Your task to perform on an android device: Open Android settings Image 0: 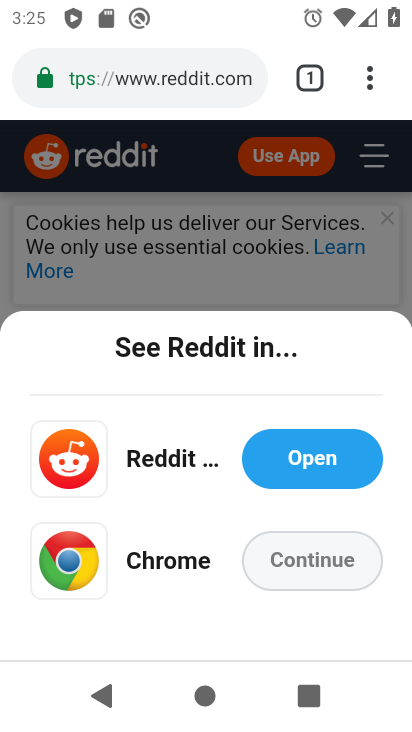
Step 0: press home button
Your task to perform on an android device: Open Android settings Image 1: 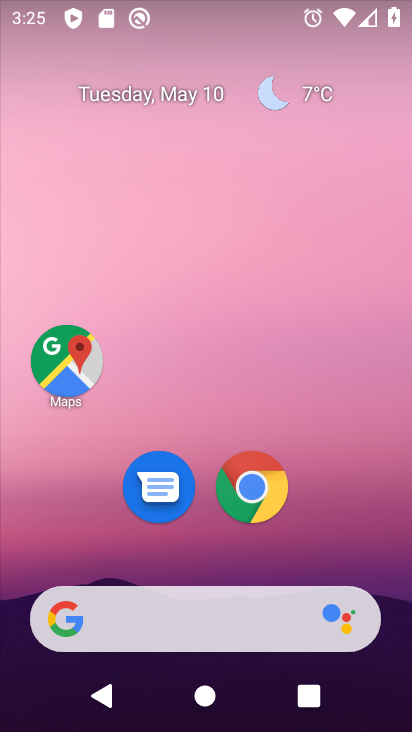
Step 1: drag from (334, 510) to (289, 180)
Your task to perform on an android device: Open Android settings Image 2: 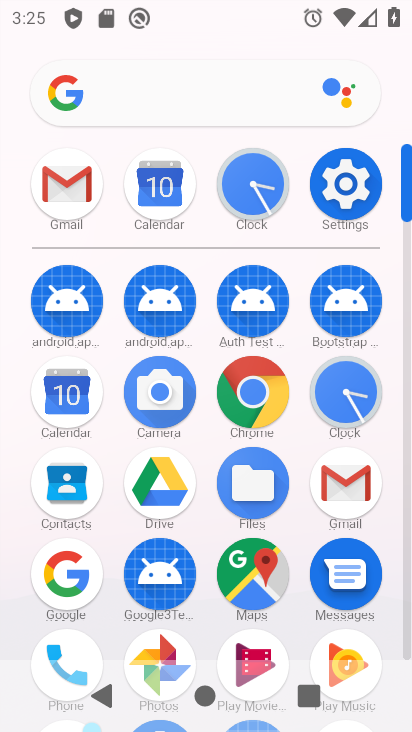
Step 2: click (340, 169)
Your task to perform on an android device: Open Android settings Image 3: 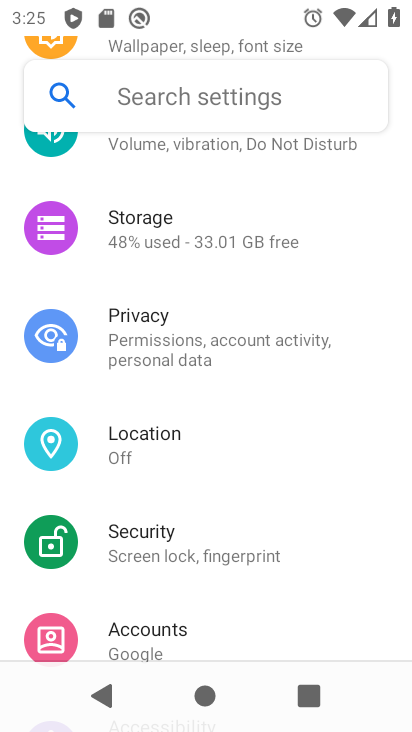
Step 3: task complete